Your task to perform on an android device: Open maps Image 0: 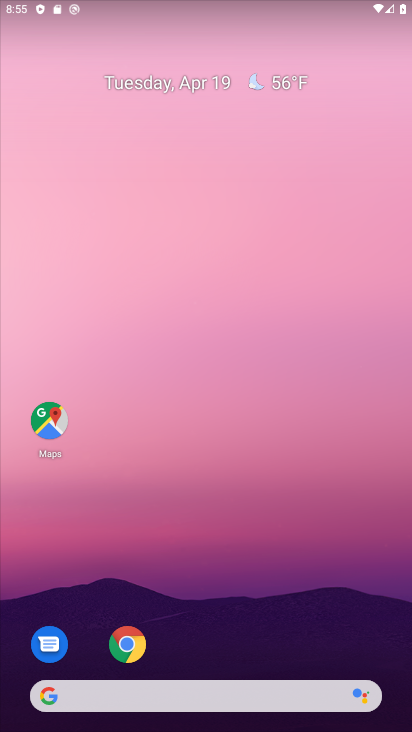
Step 0: click (51, 426)
Your task to perform on an android device: Open maps Image 1: 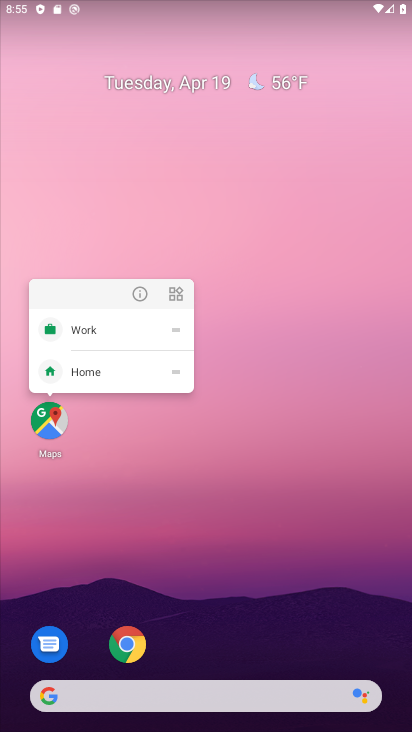
Step 1: click (43, 419)
Your task to perform on an android device: Open maps Image 2: 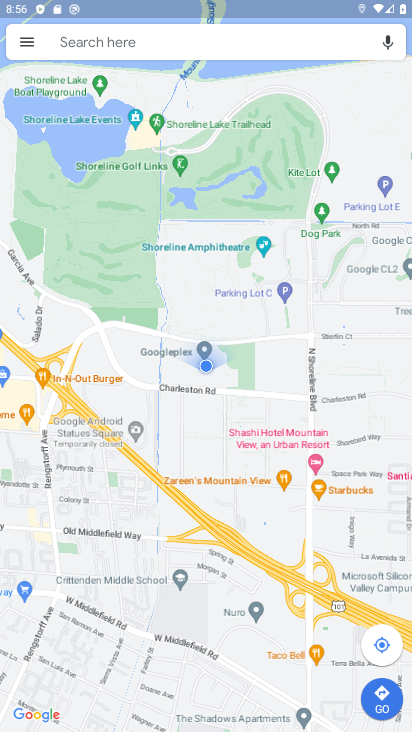
Step 2: task complete